Your task to perform on an android device: turn pop-ups off in chrome Image 0: 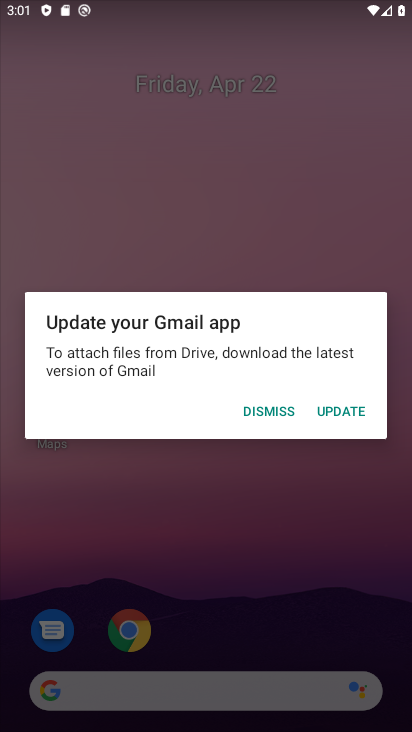
Step 0: click (274, 403)
Your task to perform on an android device: turn pop-ups off in chrome Image 1: 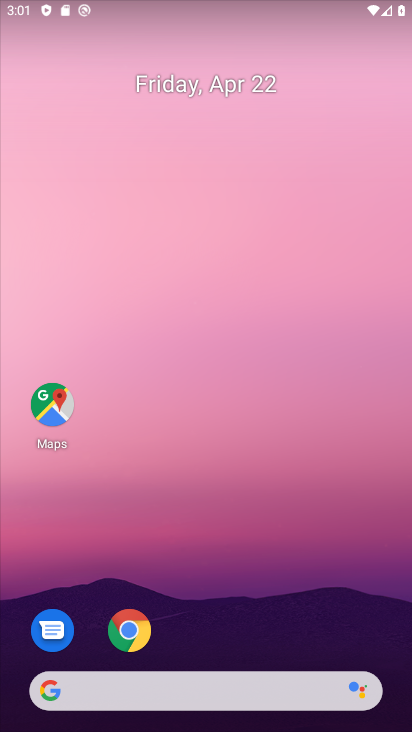
Step 1: click (129, 623)
Your task to perform on an android device: turn pop-ups off in chrome Image 2: 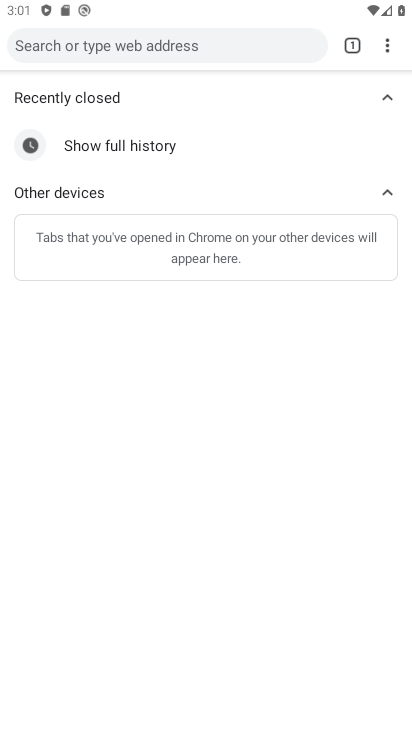
Step 2: click (391, 51)
Your task to perform on an android device: turn pop-ups off in chrome Image 3: 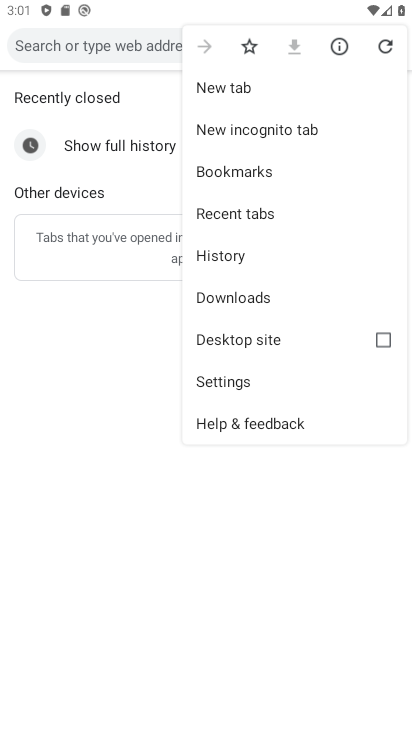
Step 3: click (221, 382)
Your task to perform on an android device: turn pop-ups off in chrome Image 4: 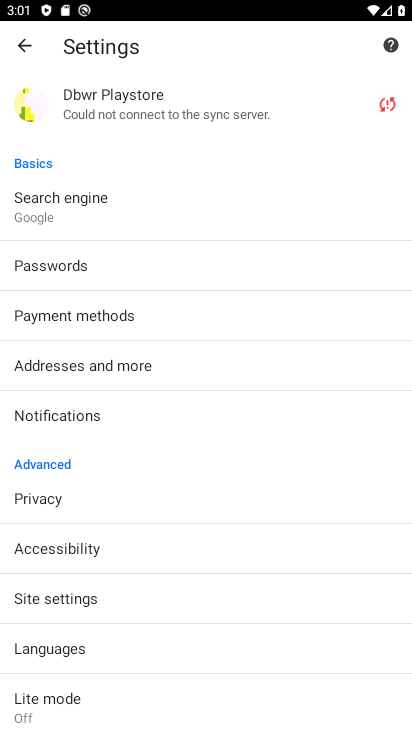
Step 4: drag from (72, 538) to (103, 359)
Your task to perform on an android device: turn pop-ups off in chrome Image 5: 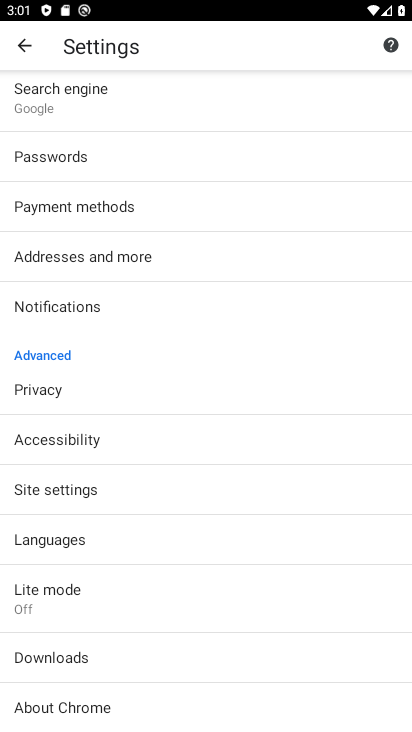
Step 5: click (59, 493)
Your task to perform on an android device: turn pop-ups off in chrome Image 6: 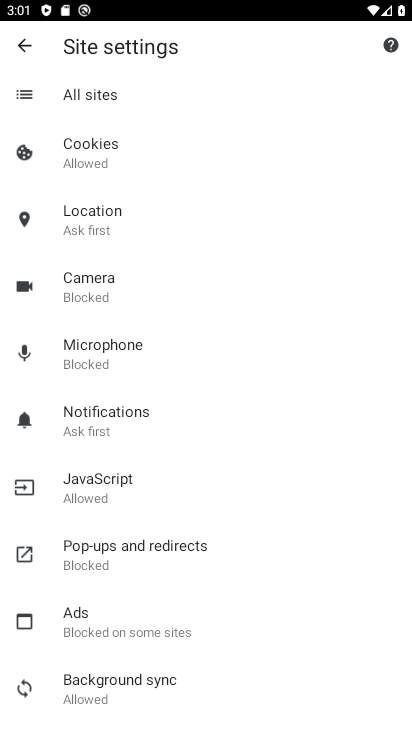
Step 6: click (108, 558)
Your task to perform on an android device: turn pop-ups off in chrome Image 7: 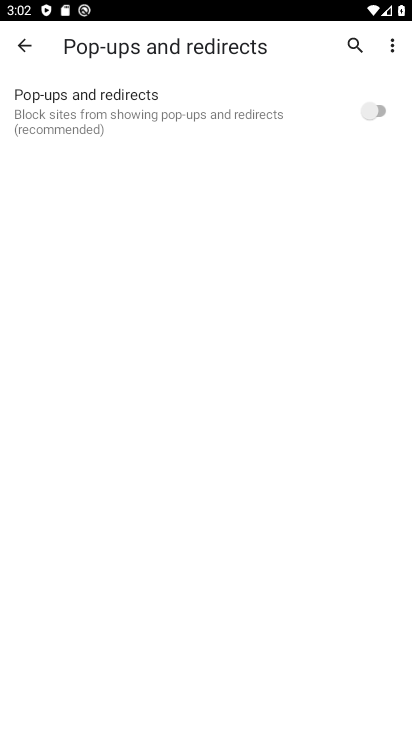
Step 7: task complete